Your task to perform on an android device: Open network settings Image 0: 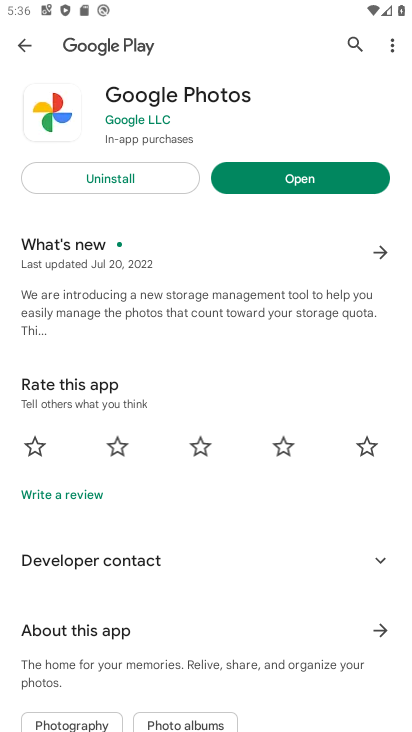
Step 0: press home button
Your task to perform on an android device: Open network settings Image 1: 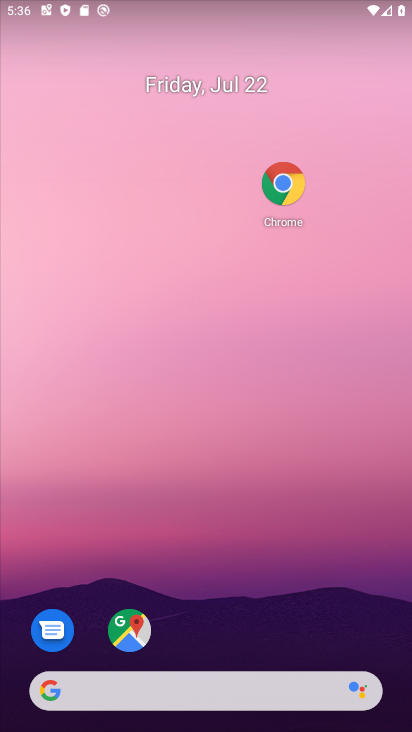
Step 1: drag from (195, 606) to (179, 251)
Your task to perform on an android device: Open network settings Image 2: 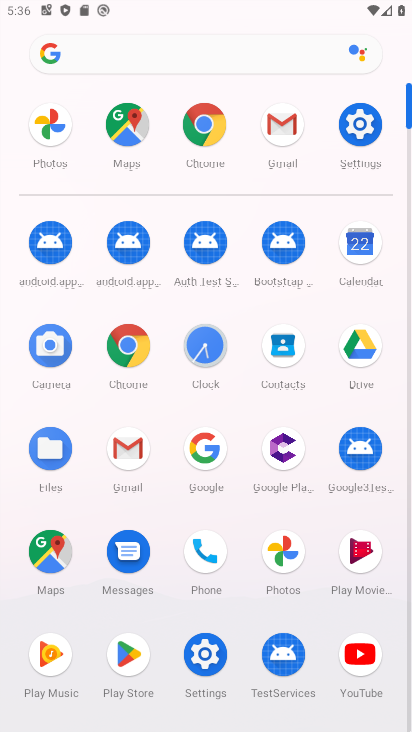
Step 2: click (362, 137)
Your task to perform on an android device: Open network settings Image 3: 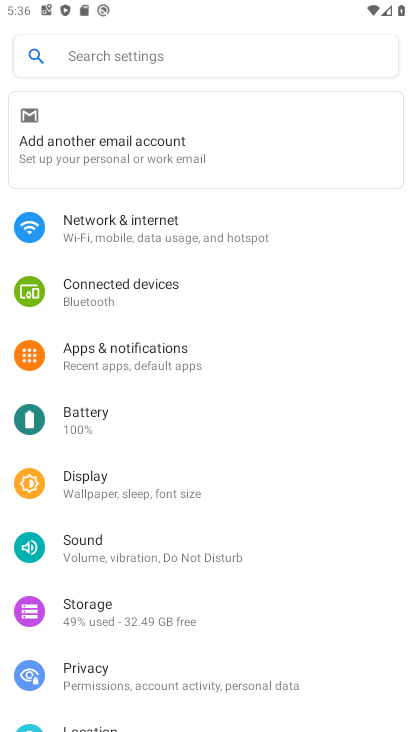
Step 3: click (139, 221)
Your task to perform on an android device: Open network settings Image 4: 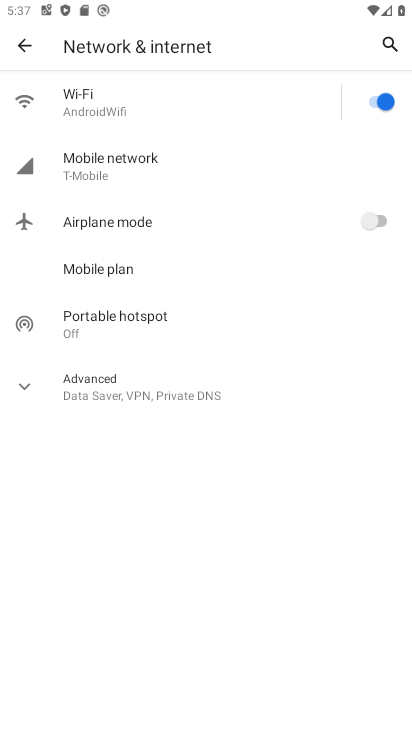
Step 4: task complete